Your task to perform on an android device: open app "Microsoft Outlook" Image 0: 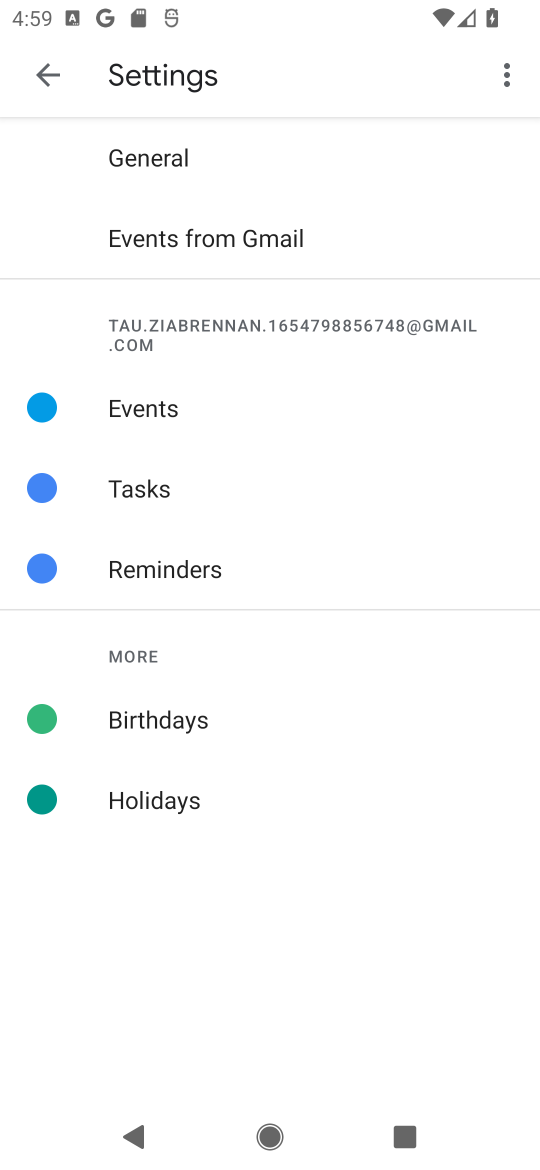
Step 0: press home button
Your task to perform on an android device: open app "Microsoft Outlook" Image 1: 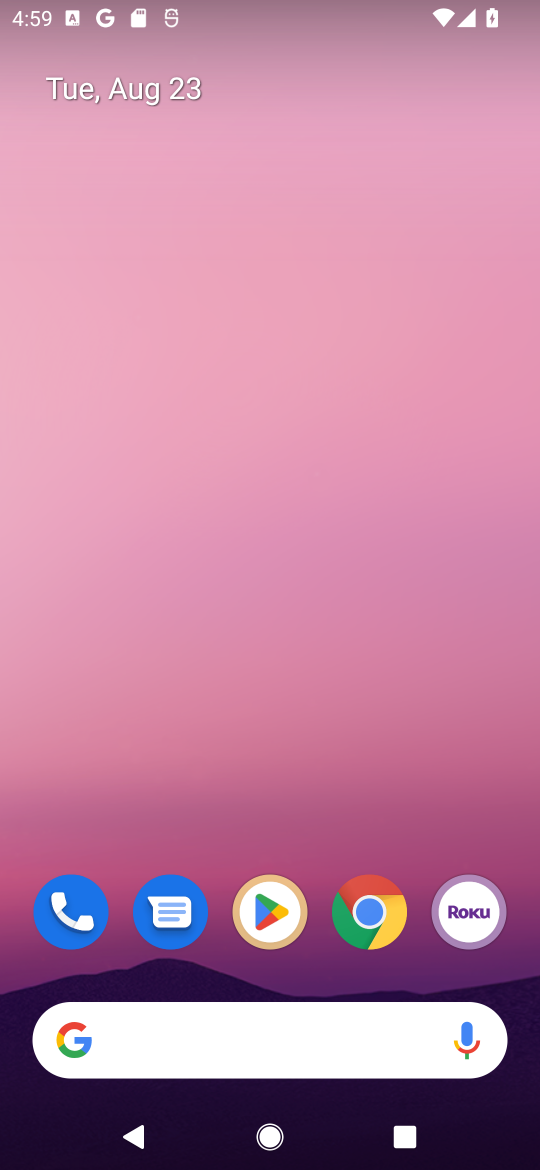
Step 1: click (268, 919)
Your task to perform on an android device: open app "Microsoft Outlook" Image 2: 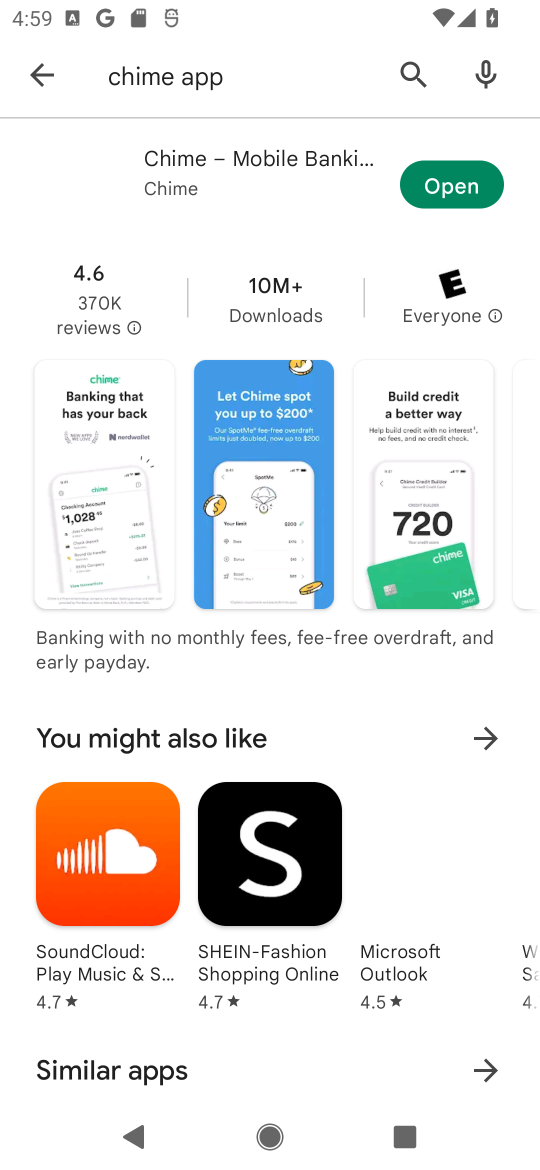
Step 2: click (63, 65)
Your task to perform on an android device: open app "Microsoft Outlook" Image 3: 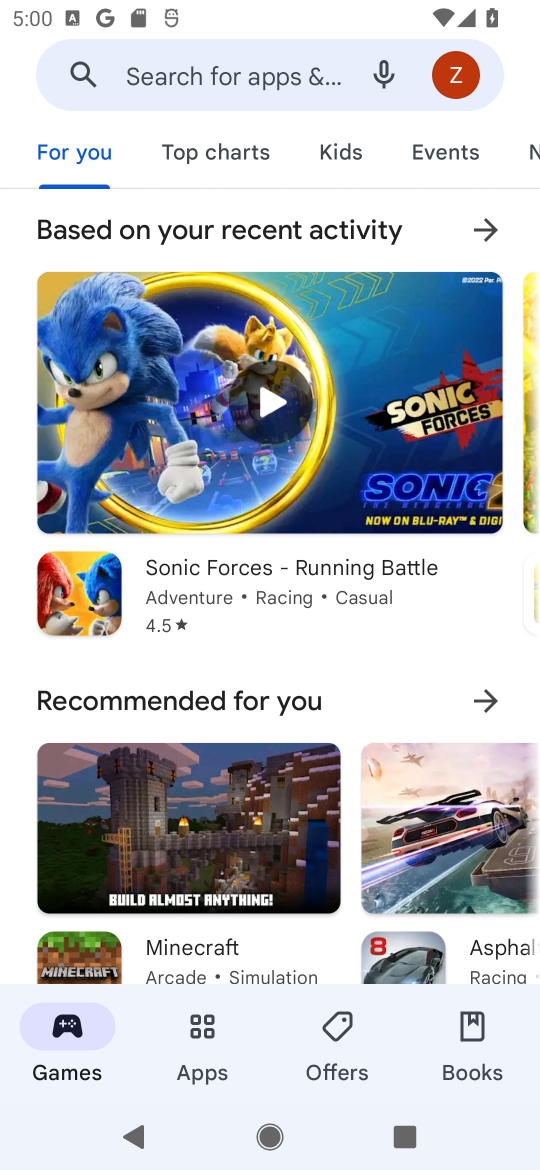
Step 3: click (226, 59)
Your task to perform on an android device: open app "Microsoft Outlook" Image 4: 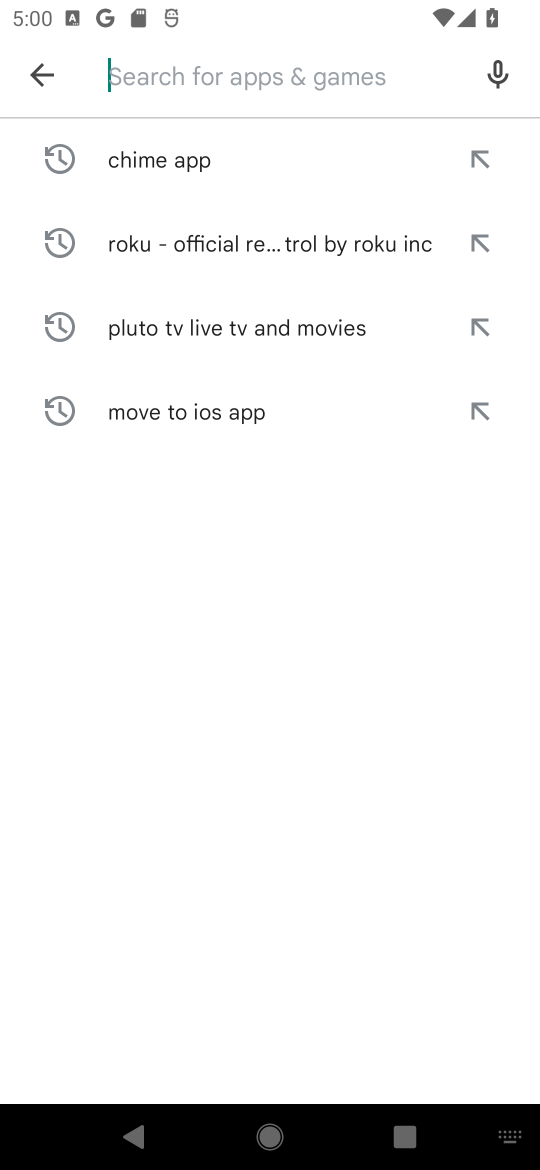
Step 4: type "Microsoft Outlook "
Your task to perform on an android device: open app "Microsoft Outlook" Image 5: 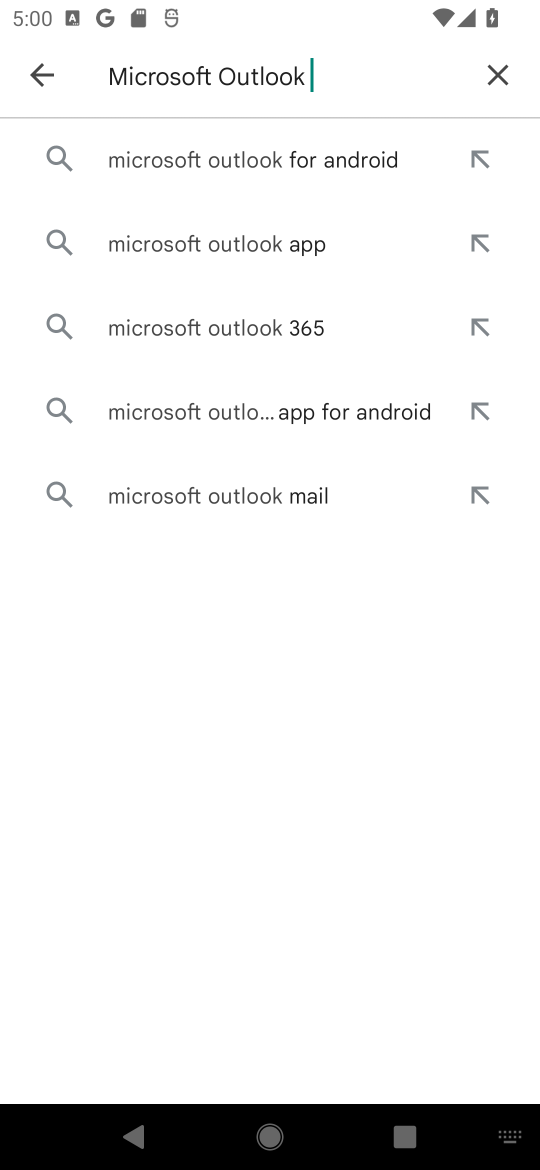
Step 5: click (252, 162)
Your task to perform on an android device: open app "Microsoft Outlook" Image 6: 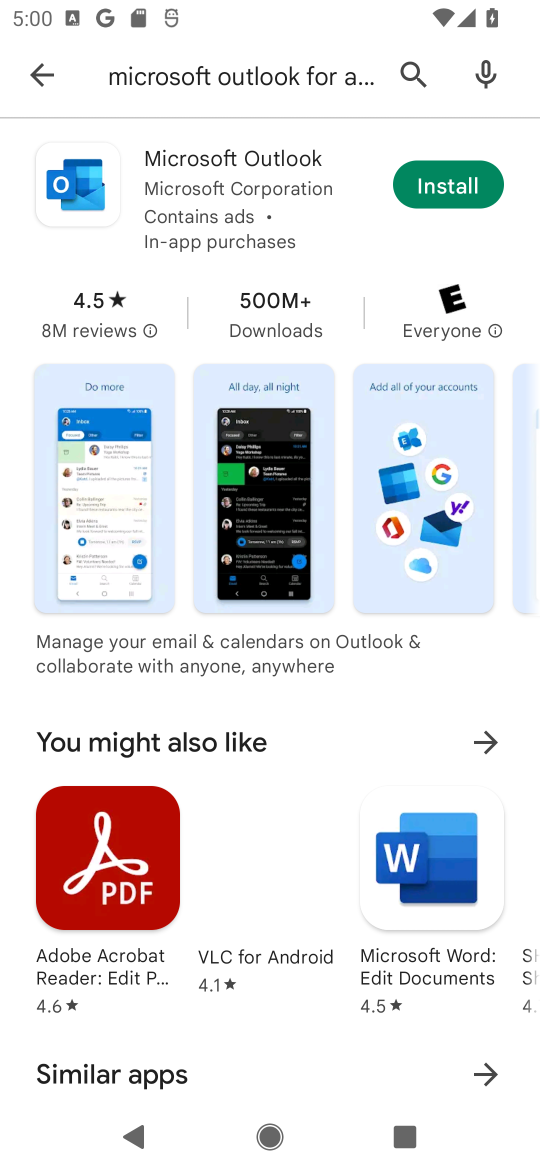
Step 6: click (451, 172)
Your task to perform on an android device: open app "Microsoft Outlook" Image 7: 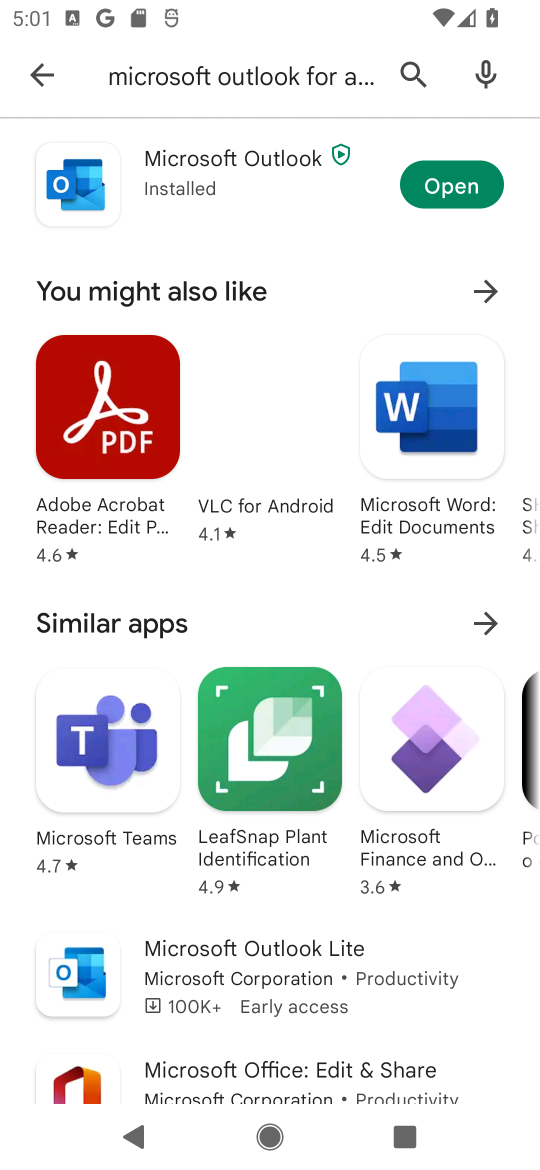
Step 7: click (452, 176)
Your task to perform on an android device: open app "Microsoft Outlook" Image 8: 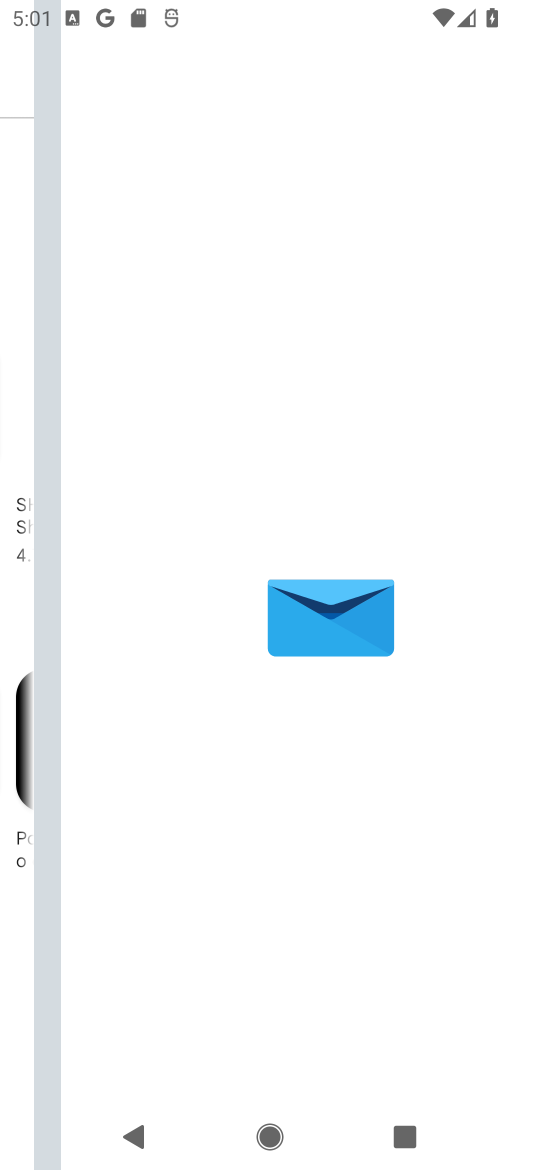
Step 8: task complete